Your task to perform on an android device: Go to notification settings Image 0: 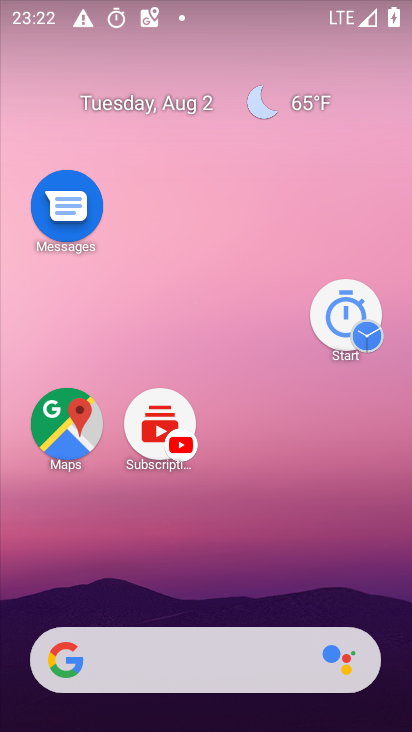
Step 0: drag from (205, 630) to (82, 204)
Your task to perform on an android device: Go to notification settings Image 1: 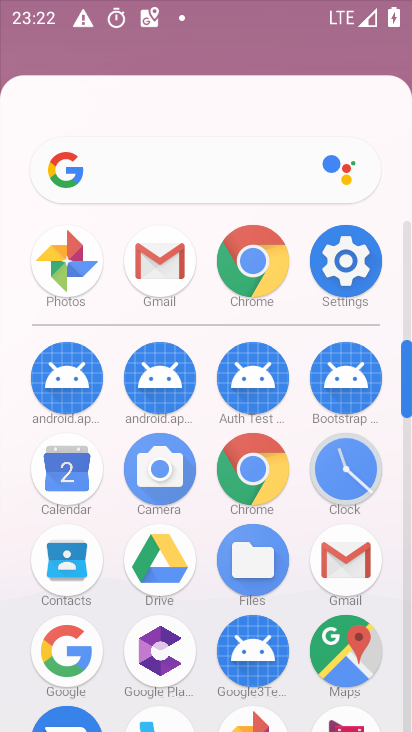
Step 1: drag from (224, 549) to (176, 86)
Your task to perform on an android device: Go to notification settings Image 2: 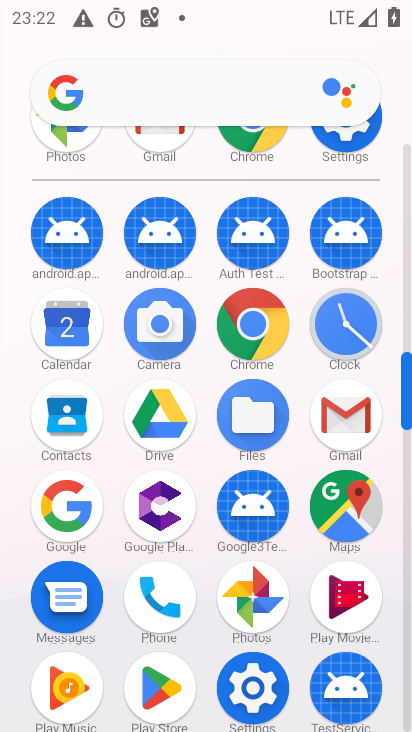
Step 2: click (249, 697)
Your task to perform on an android device: Go to notification settings Image 3: 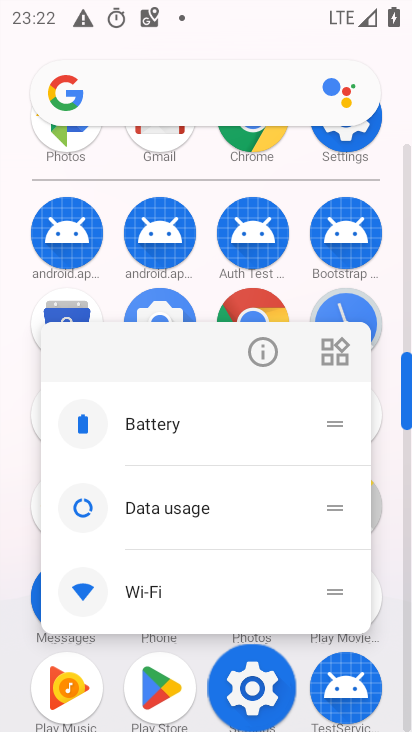
Step 3: click (249, 697)
Your task to perform on an android device: Go to notification settings Image 4: 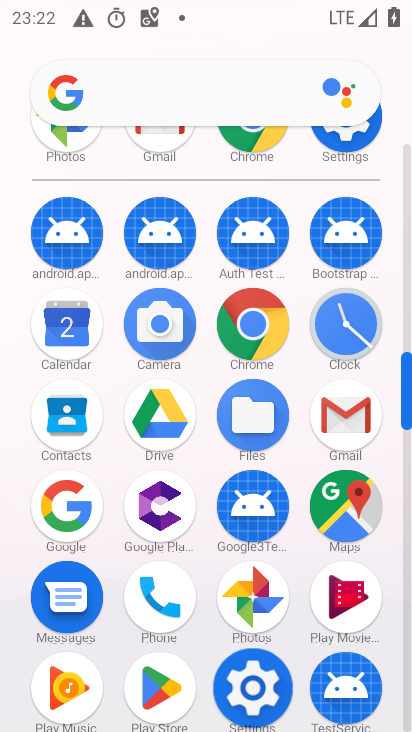
Step 4: click (251, 695)
Your task to perform on an android device: Go to notification settings Image 5: 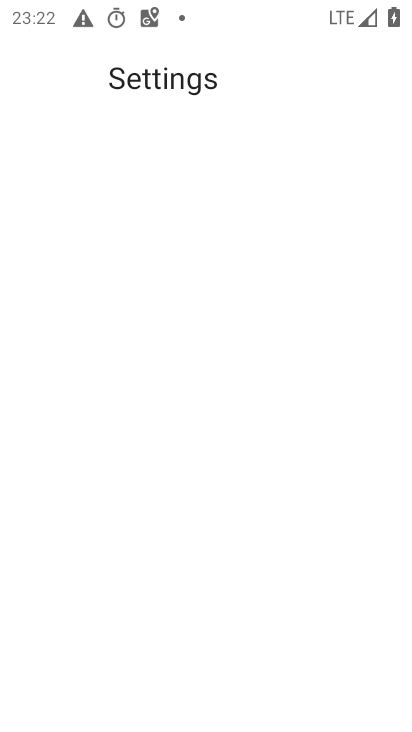
Step 5: click (251, 695)
Your task to perform on an android device: Go to notification settings Image 6: 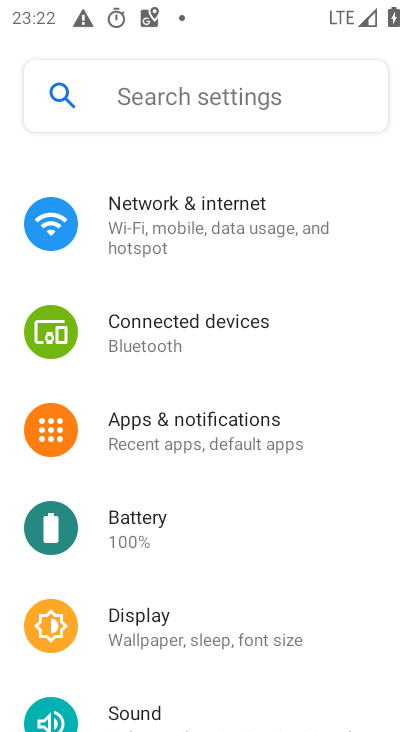
Step 6: click (251, 695)
Your task to perform on an android device: Go to notification settings Image 7: 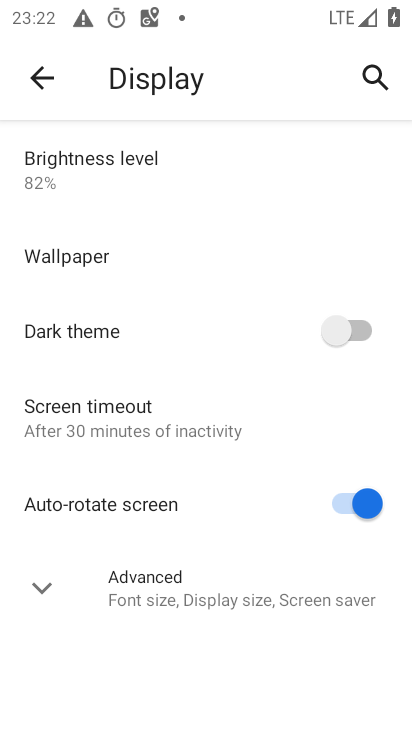
Step 7: click (36, 68)
Your task to perform on an android device: Go to notification settings Image 8: 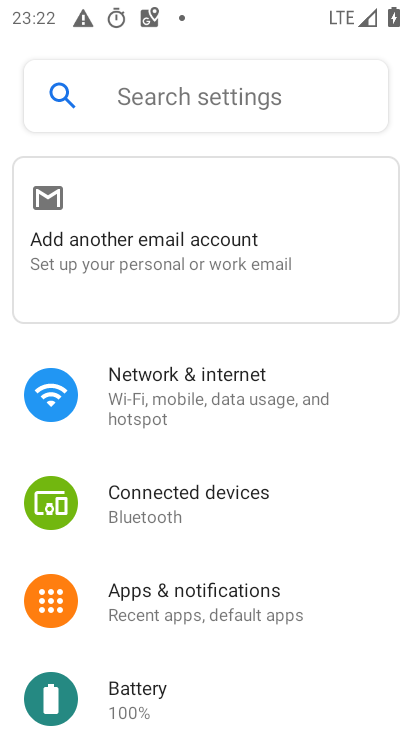
Step 8: click (177, 602)
Your task to perform on an android device: Go to notification settings Image 9: 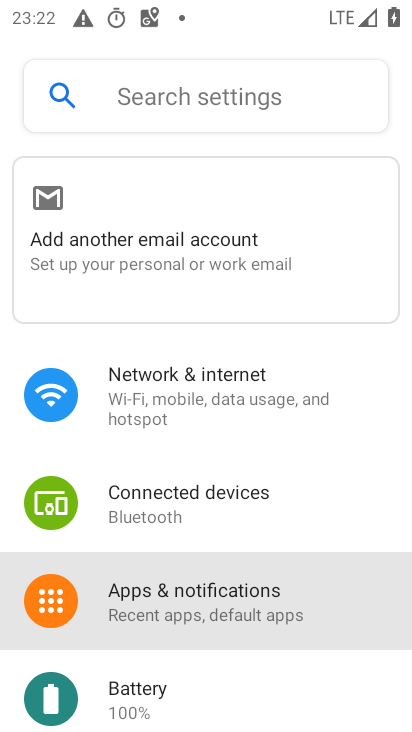
Step 9: click (177, 602)
Your task to perform on an android device: Go to notification settings Image 10: 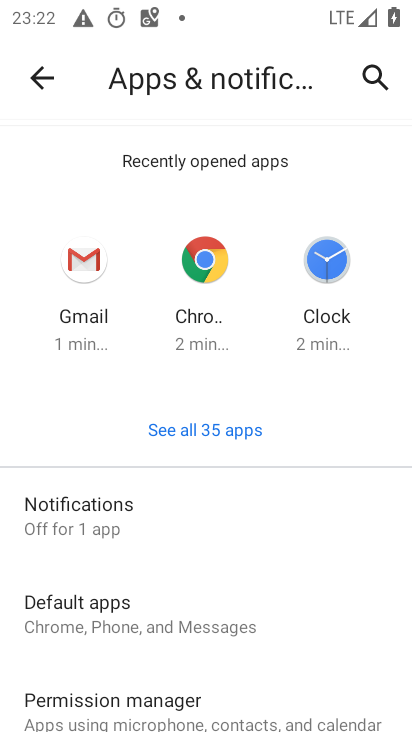
Step 10: click (65, 511)
Your task to perform on an android device: Go to notification settings Image 11: 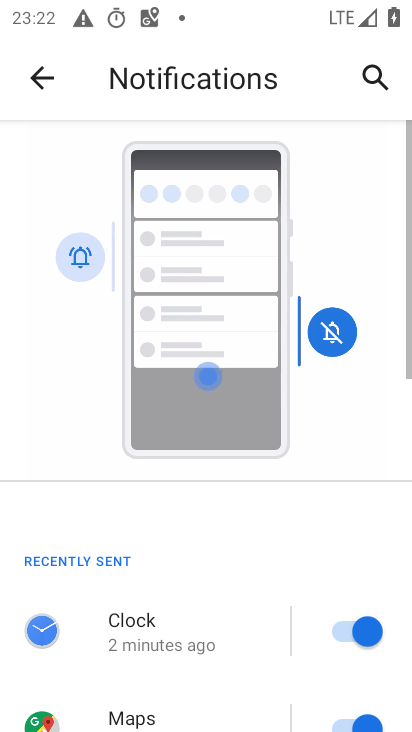
Step 11: task complete